Your task to perform on an android device: delete browsing data in the chrome app Image 0: 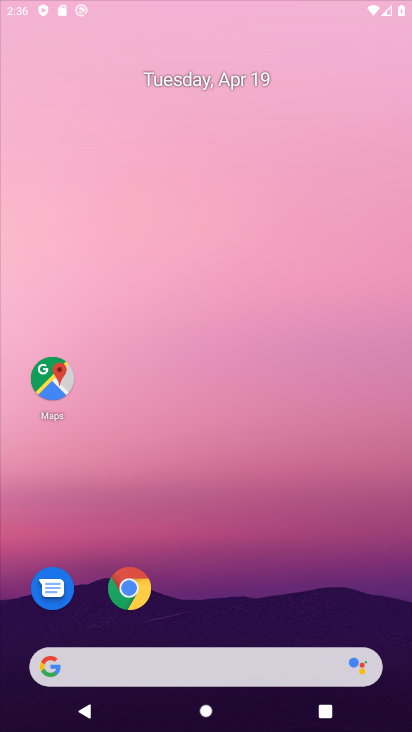
Step 0: click (310, 146)
Your task to perform on an android device: delete browsing data in the chrome app Image 1: 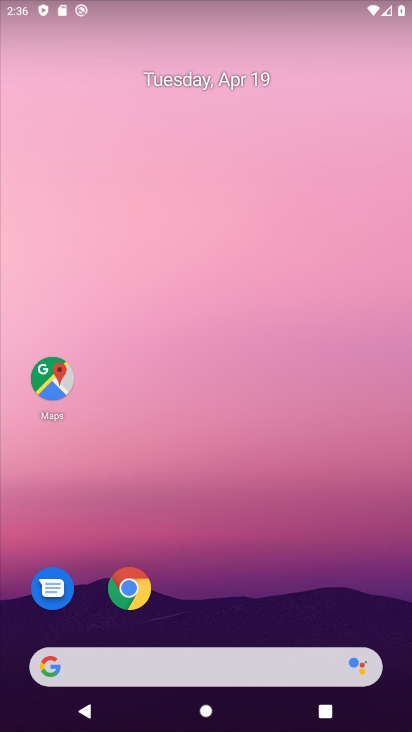
Step 1: drag from (184, 634) to (244, 278)
Your task to perform on an android device: delete browsing data in the chrome app Image 2: 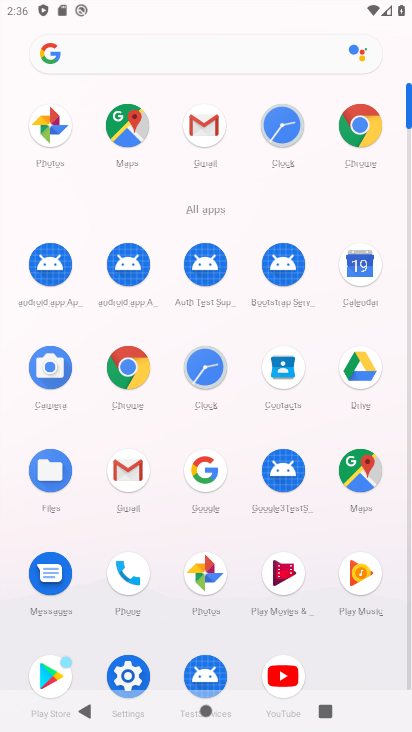
Step 2: click (124, 369)
Your task to perform on an android device: delete browsing data in the chrome app Image 3: 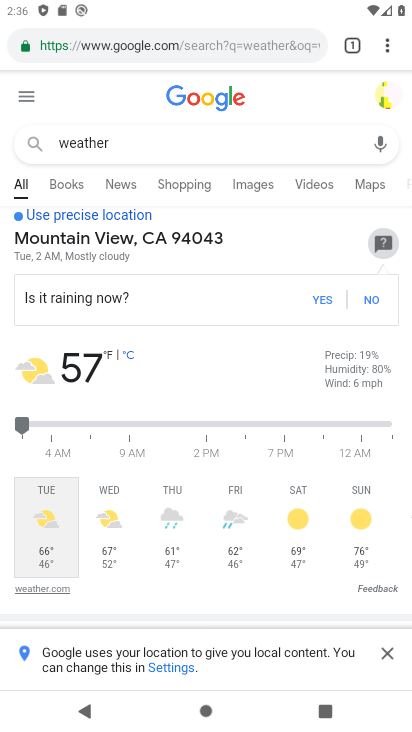
Step 3: drag from (220, 571) to (291, 258)
Your task to perform on an android device: delete browsing data in the chrome app Image 4: 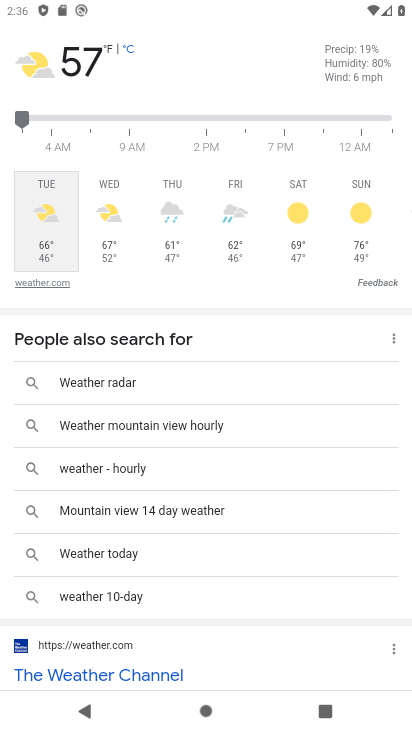
Step 4: drag from (280, 153) to (281, 663)
Your task to perform on an android device: delete browsing data in the chrome app Image 5: 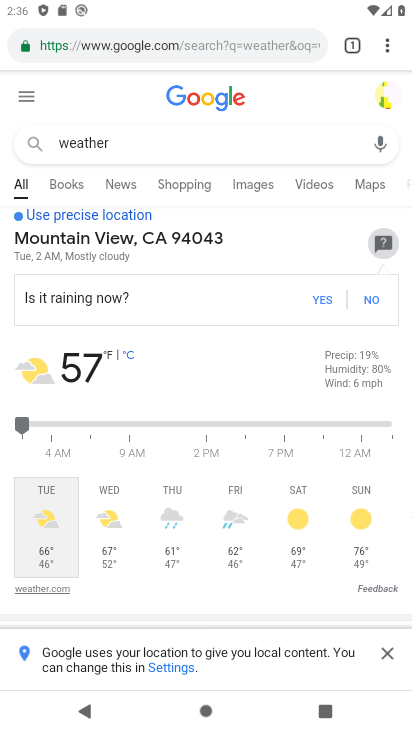
Step 5: click (383, 55)
Your task to perform on an android device: delete browsing data in the chrome app Image 6: 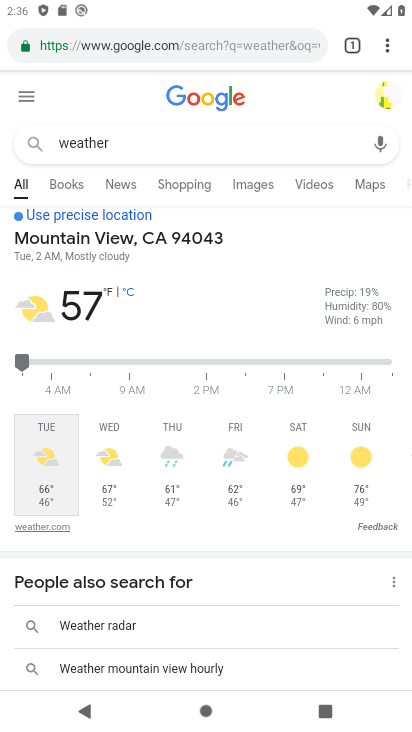
Step 6: click (390, 45)
Your task to perform on an android device: delete browsing data in the chrome app Image 7: 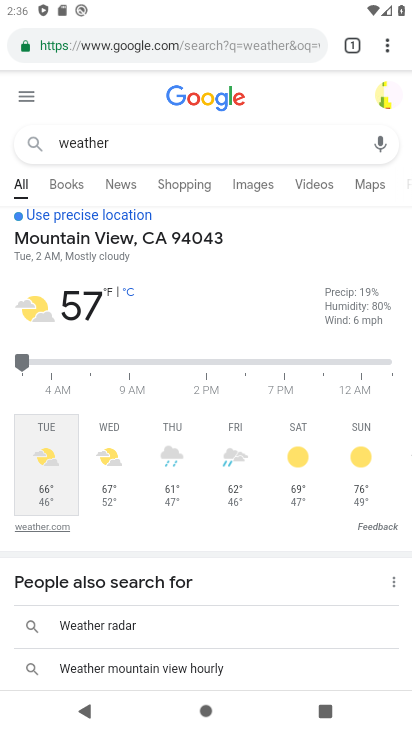
Step 7: click (396, 40)
Your task to perform on an android device: delete browsing data in the chrome app Image 8: 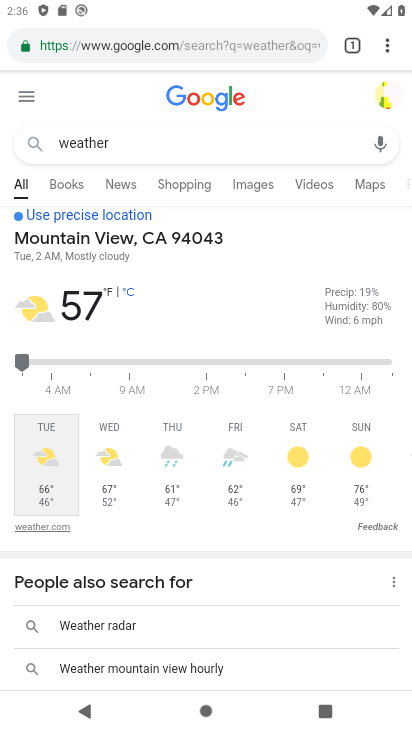
Step 8: drag from (391, 51) to (258, 249)
Your task to perform on an android device: delete browsing data in the chrome app Image 9: 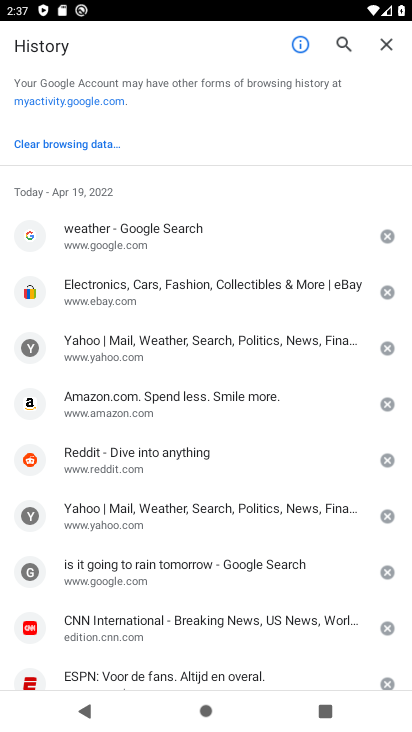
Step 9: click (60, 147)
Your task to perform on an android device: delete browsing data in the chrome app Image 10: 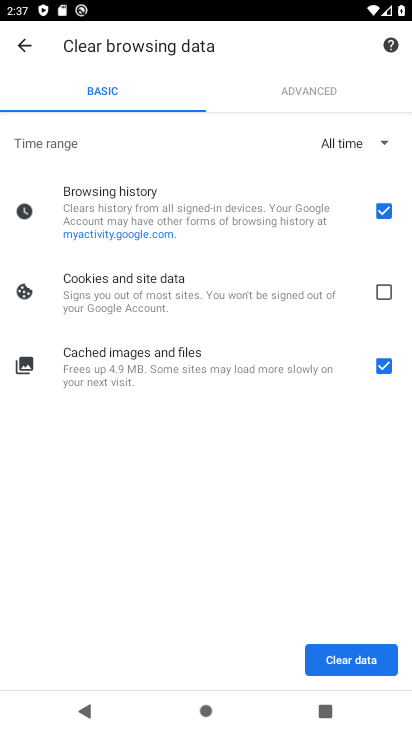
Step 10: click (388, 285)
Your task to perform on an android device: delete browsing data in the chrome app Image 11: 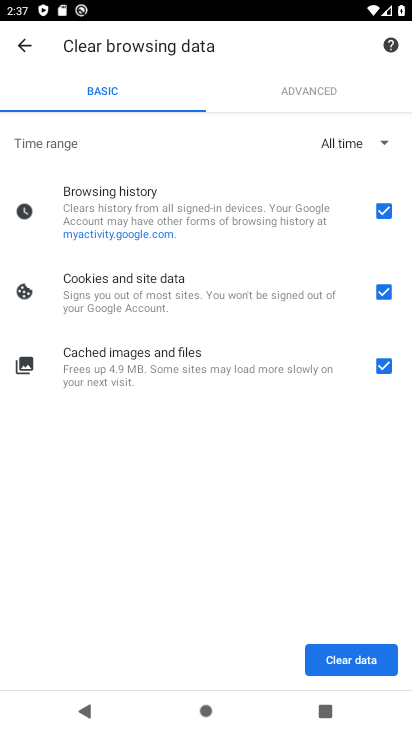
Step 11: click (333, 647)
Your task to perform on an android device: delete browsing data in the chrome app Image 12: 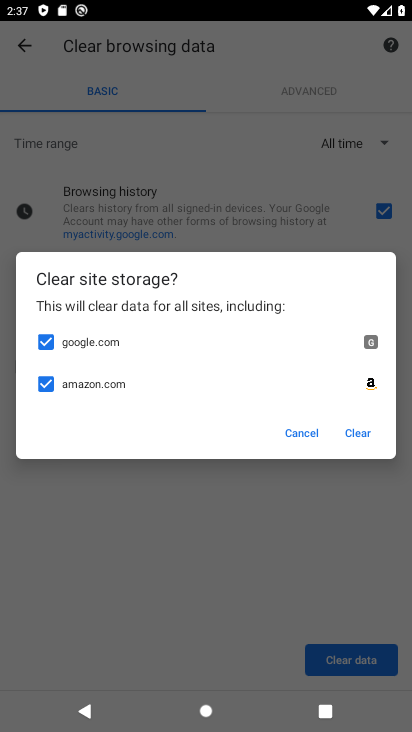
Step 12: click (358, 442)
Your task to perform on an android device: delete browsing data in the chrome app Image 13: 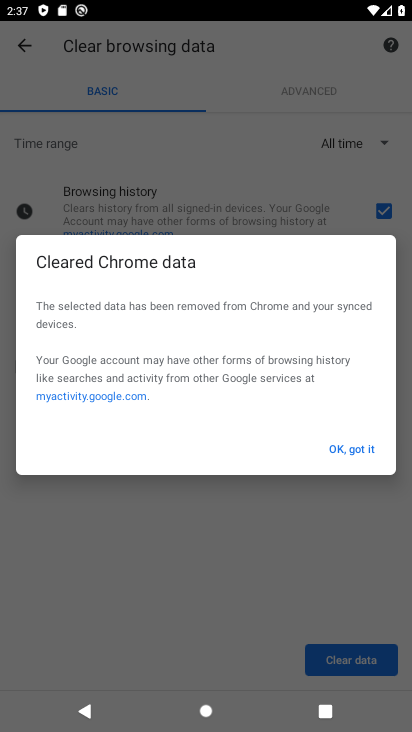
Step 13: task complete